Your task to perform on an android device: open wifi settings Image 0: 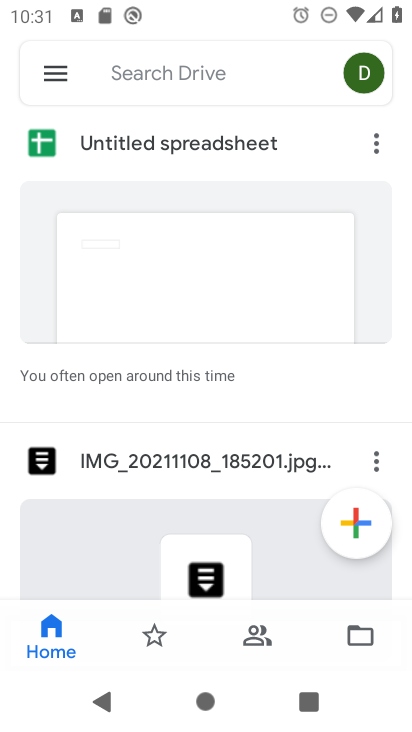
Step 0: press home button
Your task to perform on an android device: open wifi settings Image 1: 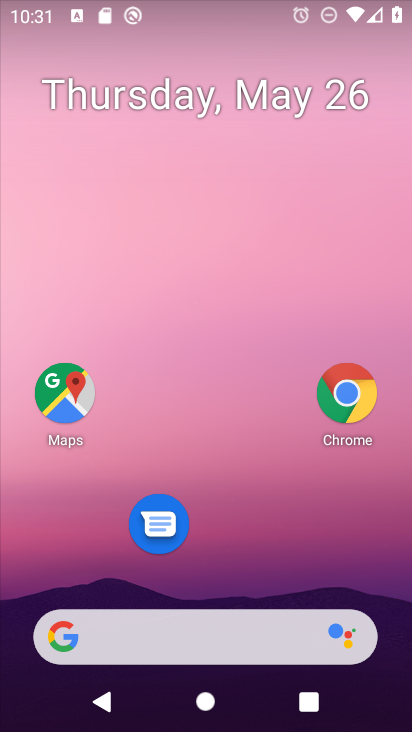
Step 1: drag from (243, 522) to (244, 27)
Your task to perform on an android device: open wifi settings Image 2: 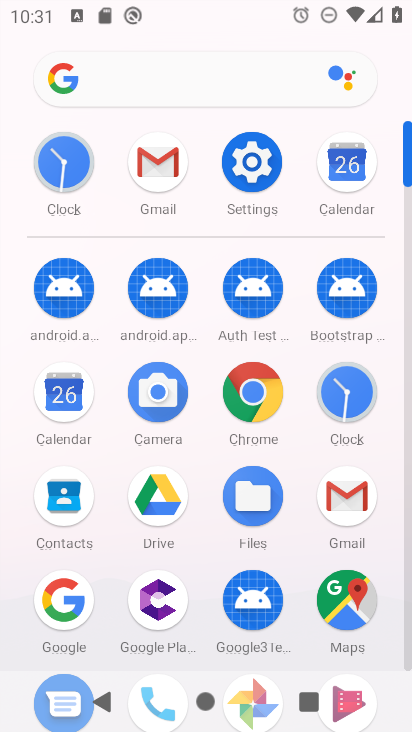
Step 2: click (248, 151)
Your task to perform on an android device: open wifi settings Image 3: 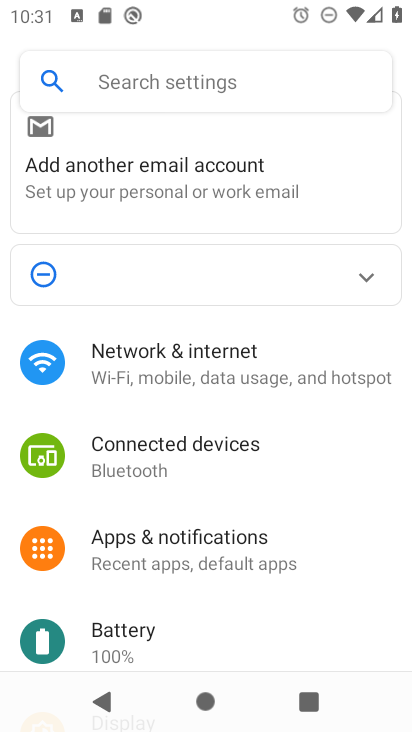
Step 3: click (196, 377)
Your task to perform on an android device: open wifi settings Image 4: 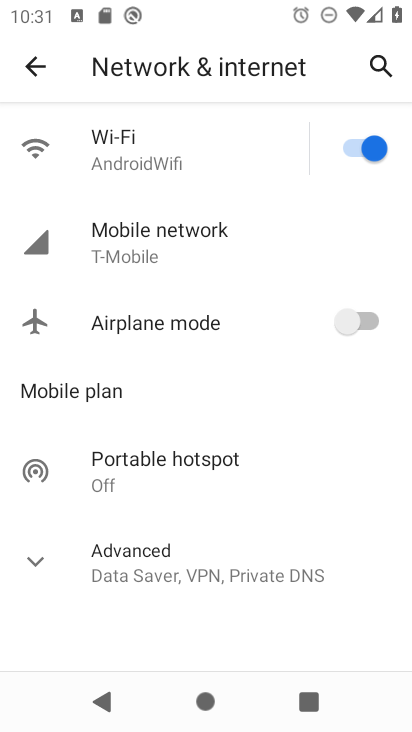
Step 4: click (157, 148)
Your task to perform on an android device: open wifi settings Image 5: 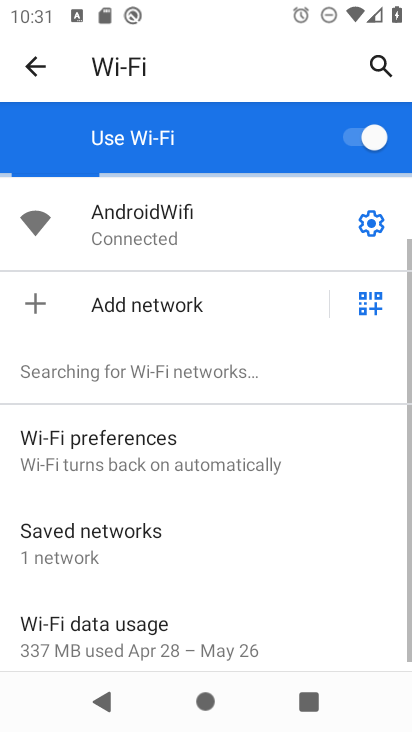
Step 5: task complete